Your task to perform on an android device: Open sound settings Image 0: 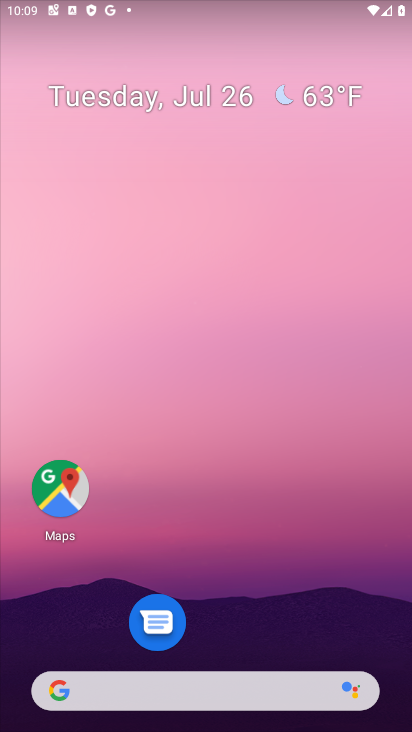
Step 0: drag from (290, 625) to (274, 24)
Your task to perform on an android device: Open sound settings Image 1: 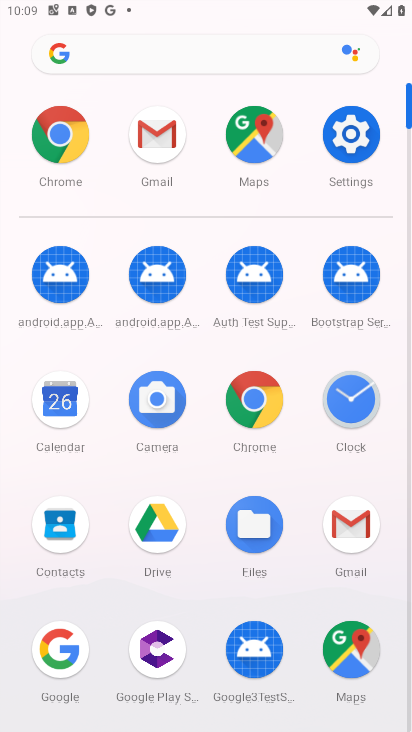
Step 1: click (334, 119)
Your task to perform on an android device: Open sound settings Image 2: 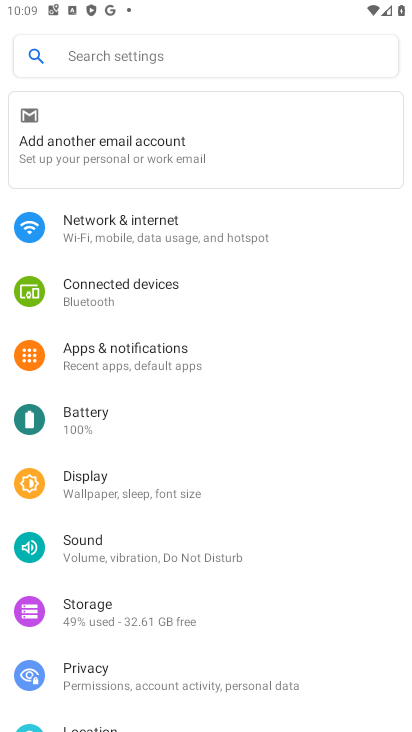
Step 2: click (87, 563)
Your task to perform on an android device: Open sound settings Image 3: 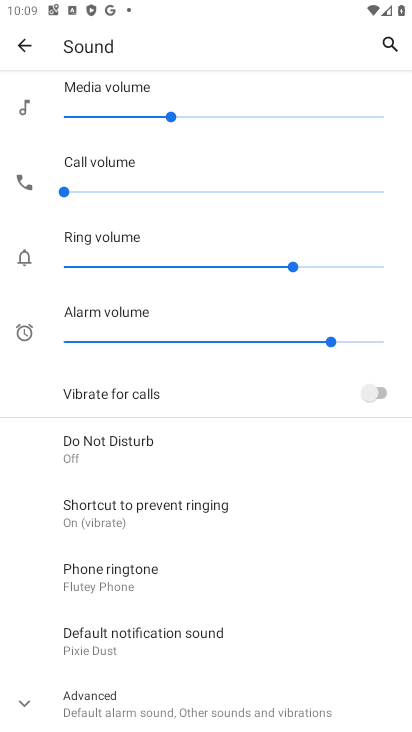
Step 3: task complete